Your task to perform on an android device: uninstall "Spotify: Music and Podcasts" Image 0: 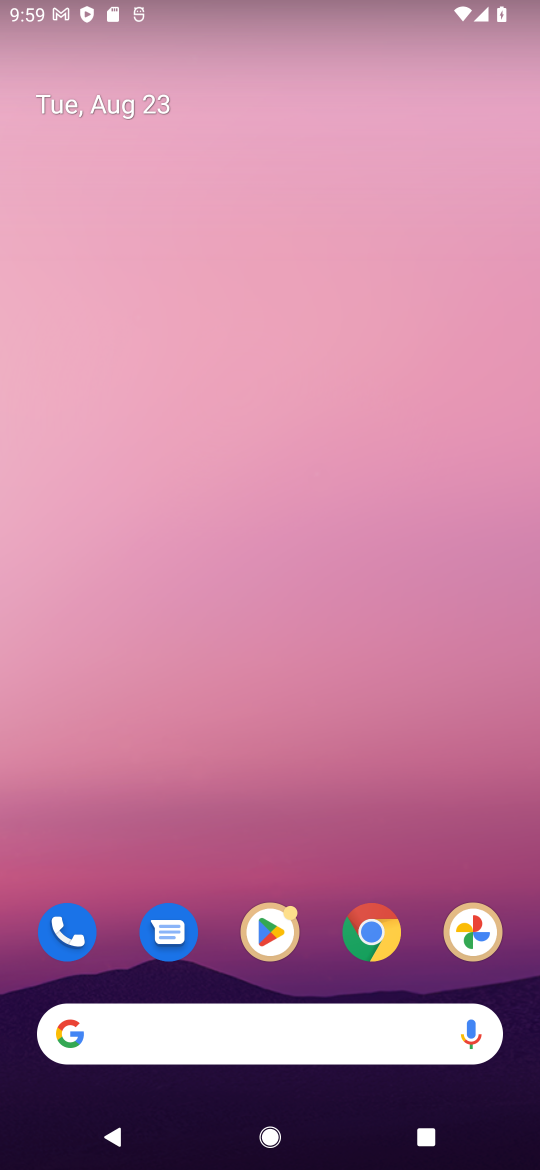
Step 0: click (297, 959)
Your task to perform on an android device: uninstall "Spotify: Music and Podcasts" Image 1: 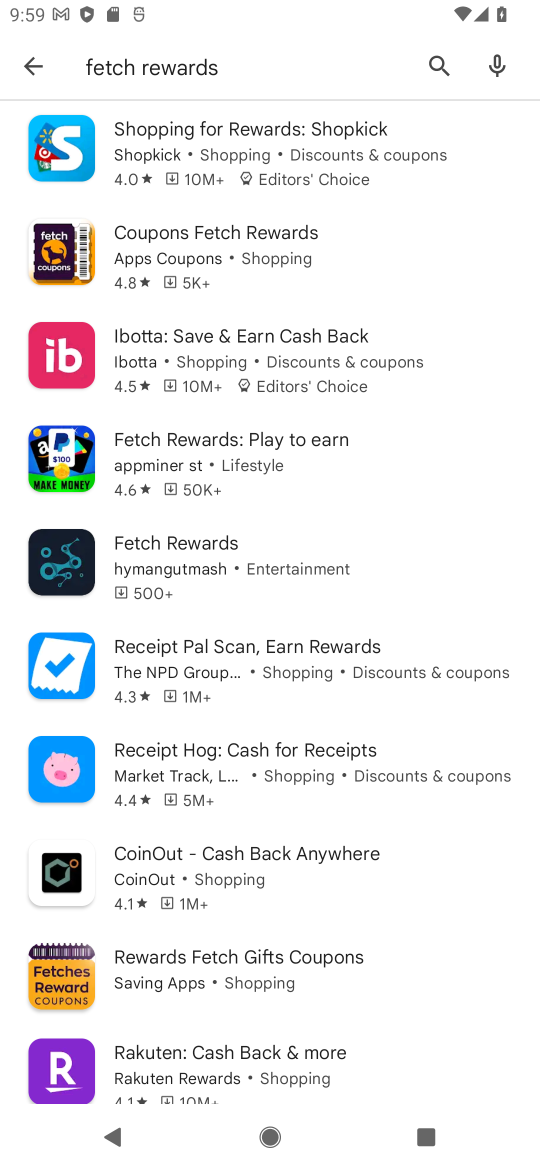
Step 1: click (439, 69)
Your task to perform on an android device: uninstall "Spotify: Music and Podcasts" Image 2: 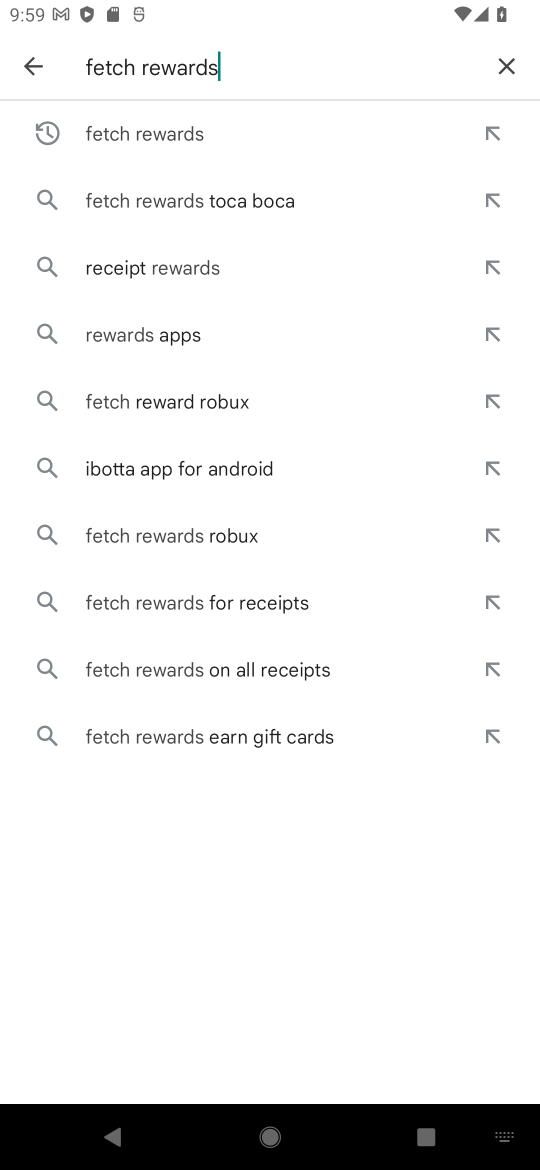
Step 2: click (514, 72)
Your task to perform on an android device: uninstall "Spotify: Music and Podcasts" Image 3: 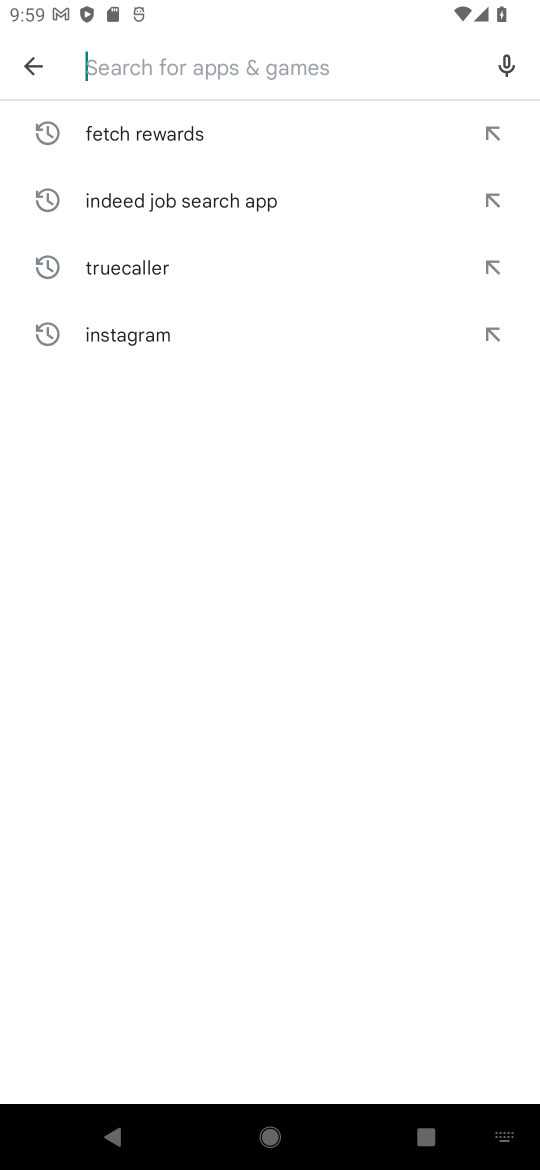
Step 3: type "spotify"
Your task to perform on an android device: uninstall "Spotify: Music and Podcasts" Image 4: 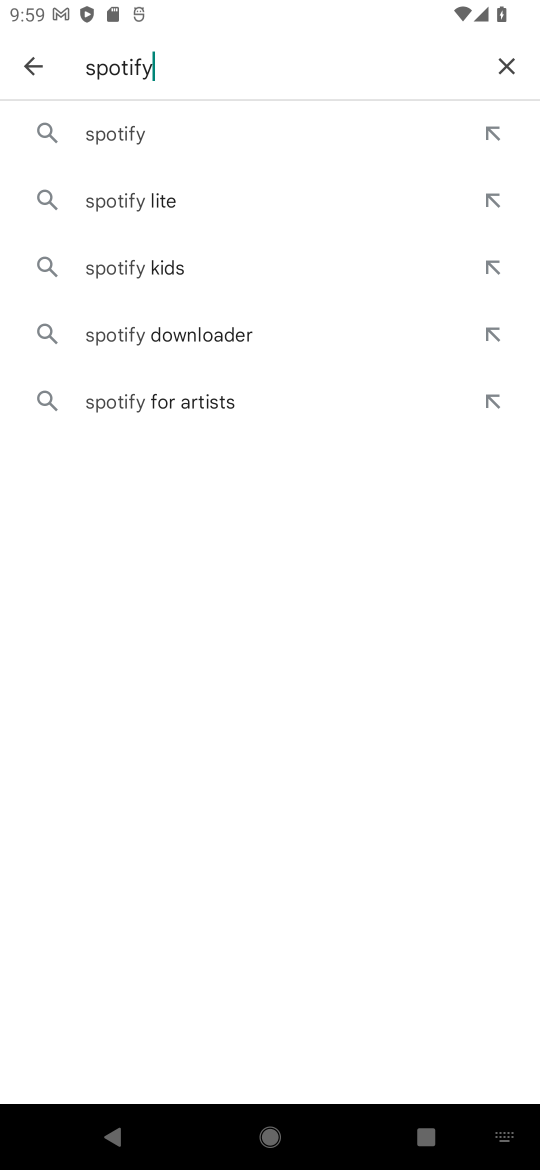
Step 4: click (97, 136)
Your task to perform on an android device: uninstall "Spotify: Music and Podcasts" Image 5: 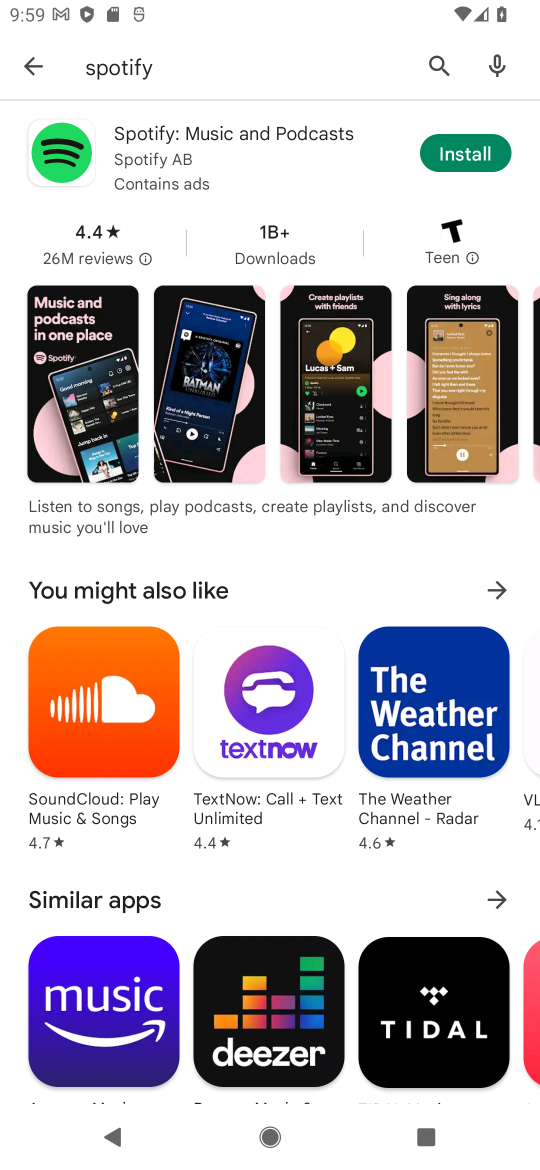
Step 5: task complete